Your task to perform on an android device: Open Google Chrome Image 0: 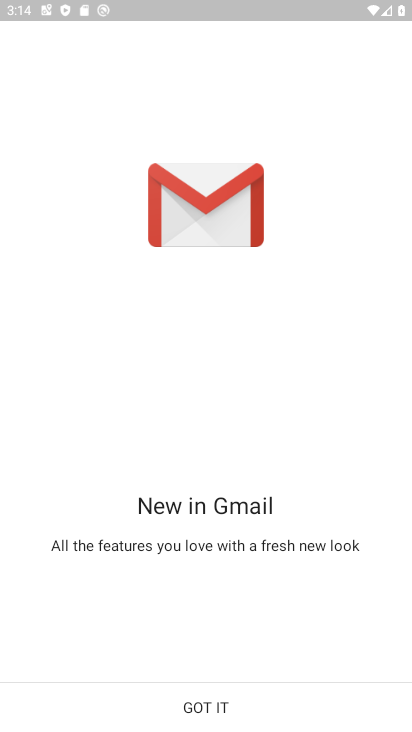
Step 0: press home button
Your task to perform on an android device: Open Google Chrome Image 1: 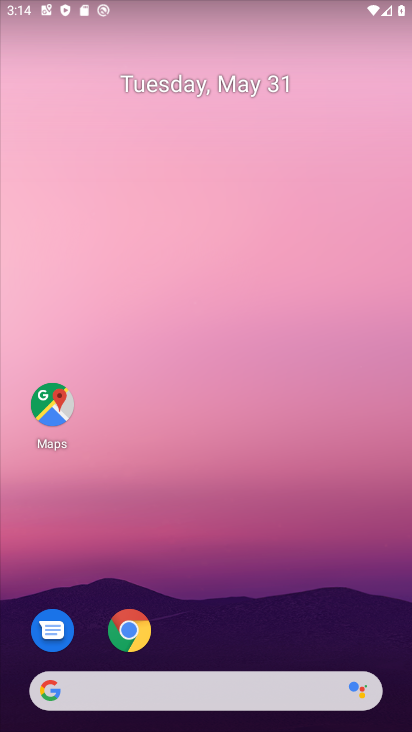
Step 1: drag from (192, 654) to (300, 184)
Your task to perform on an android device: Open Google Chrome Image 2: 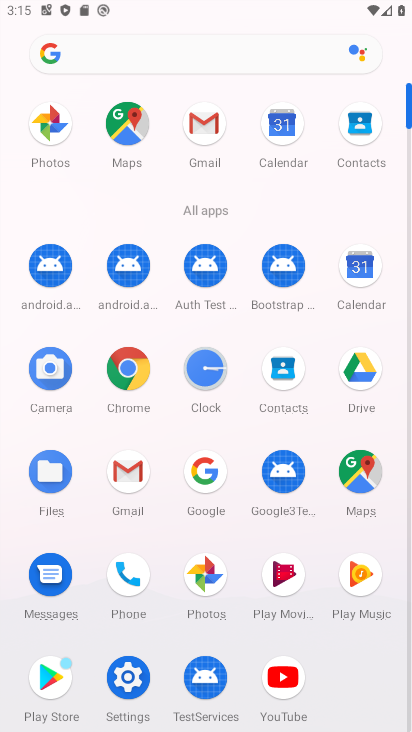
Step 2: click (161, 372)
Your task to perform on an android device: Open Google Chrome Image 3: 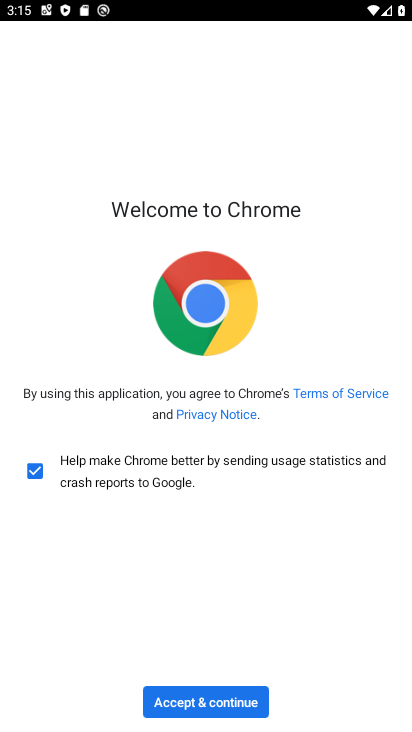
Step 3: click (244, 708)
Your task to perform on an android device: Open Google Chrome Image 4: 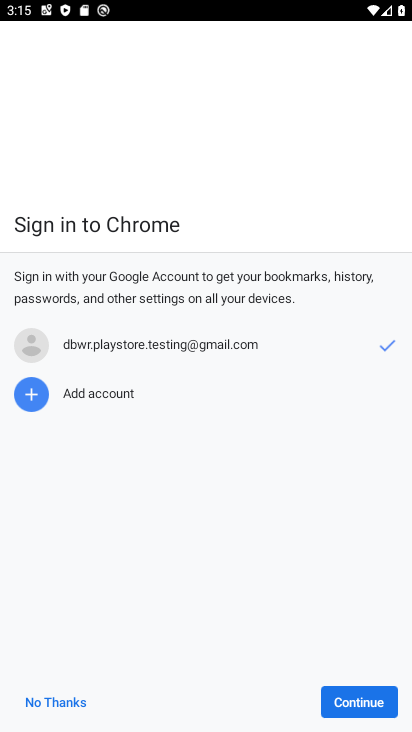
Step 4: click (374, 704)
Your task to perform on an android device: Open Google Chrome Image 5: 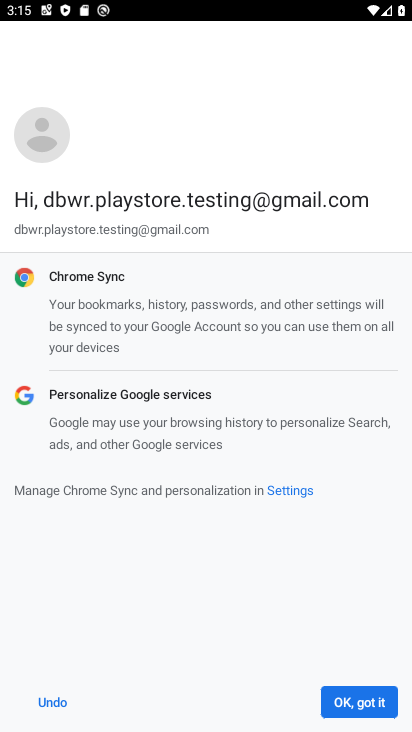
Step 5: click (374, 704)
Your task to perform on an android device: Open Google Chrome Image 6: 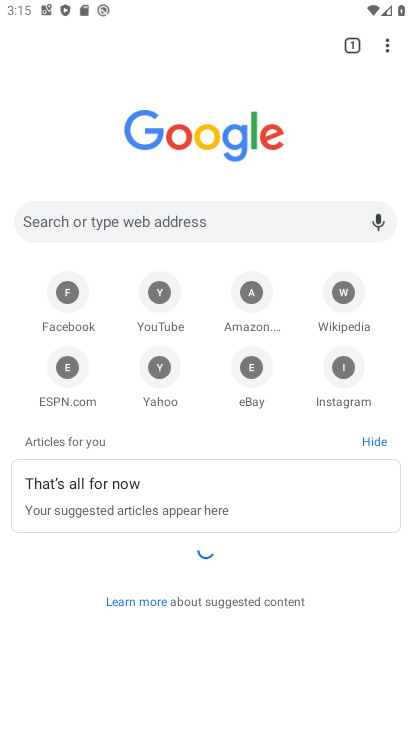
Step 6: task complete